Your task to perform on an android device: add a label to a message in the gmail app Image 0: 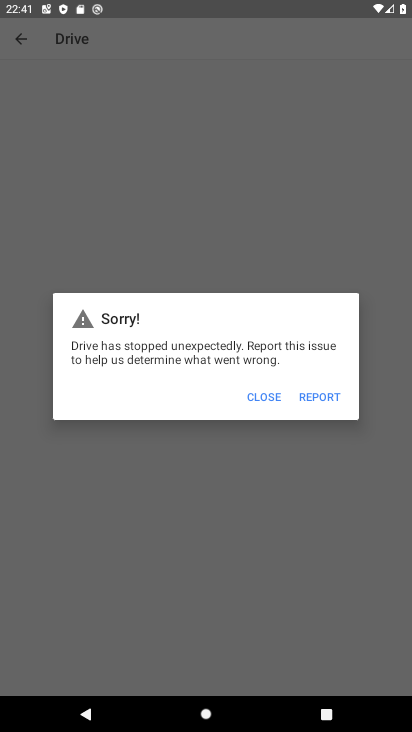
Step 0: press home button
Your task to perform on an android device: add a label to a message in the gmail app Image 1: 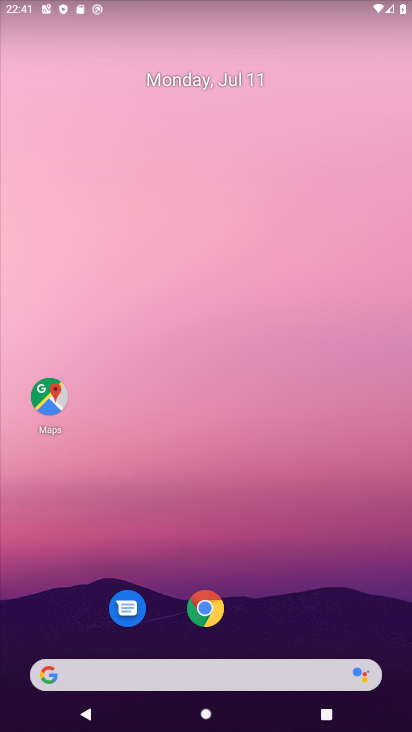
Step 1: drag from (5, 715) to (178, 62)
Your task to perform on an android device: add a label to a message in the gmail app Image 2: 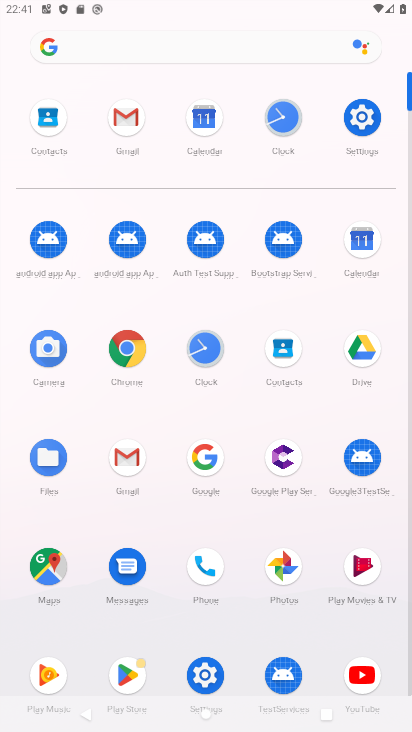
Step 2: click (129, 467)
Your task to perform on an android device: add a label to a message in the gmail app Image 3: 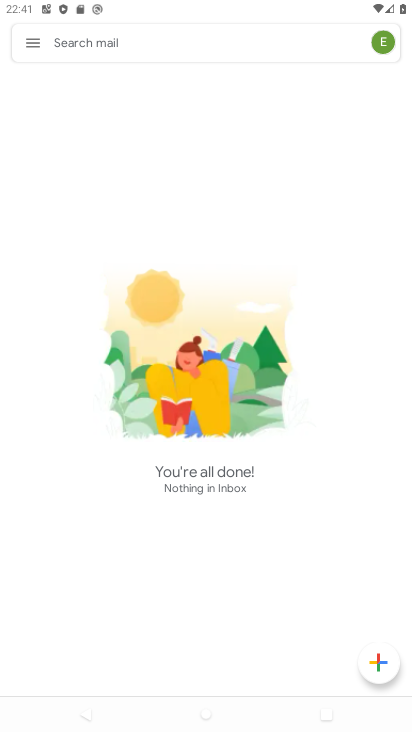
Step 3: click (38, 45)
Your task to perform on an android device: add a label to a message in the gmail app Image 4: 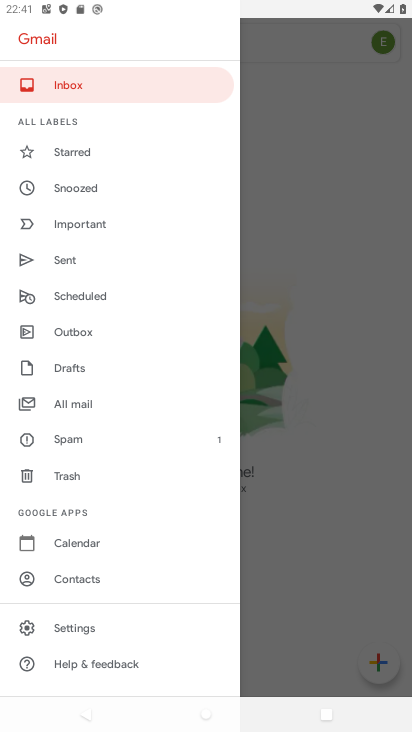
Step 4: click (121, 80)
Your task to perform on an android device: add a label to a message in the gmail app Image 5: 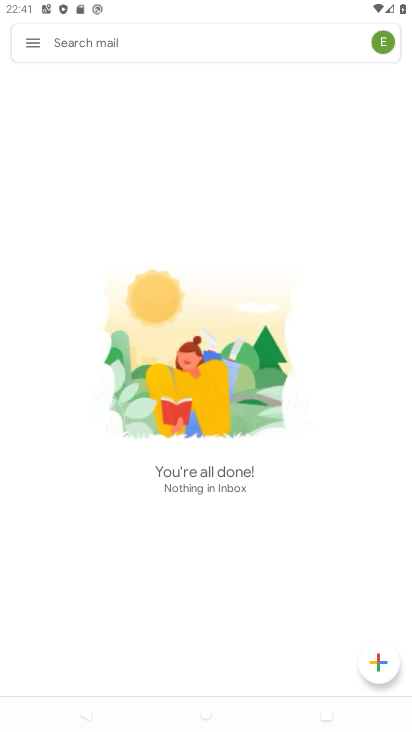
Step 5: task complete